Your task to perform on an android device: Go to battery settings Image 0: 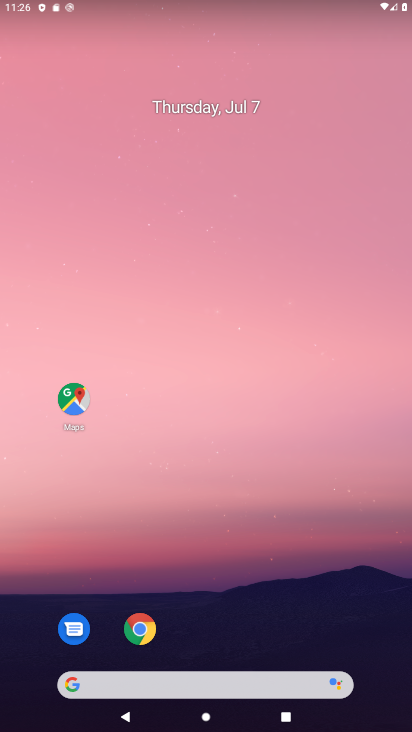
Step 0: drag from (355, 631) to (320, 143)
Your task to perform on an android device: Go to battery settings Image 1: 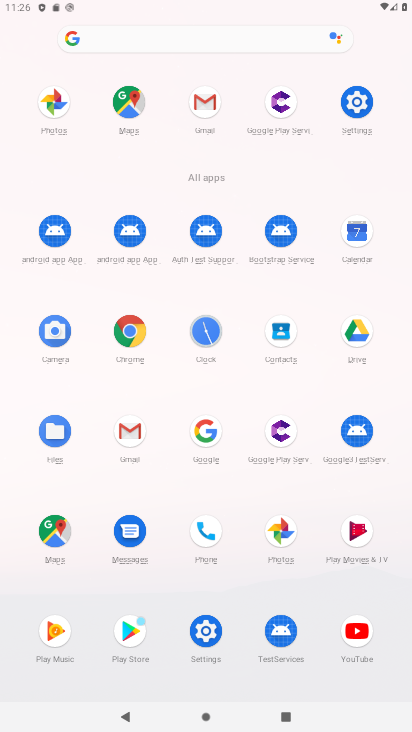
Step 1: click (209, 631)
Your task to perform on an android device: Go to battery settings Image 2: 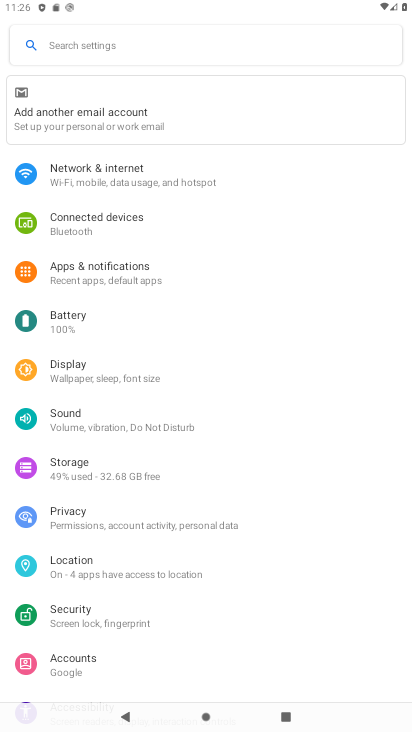
Step 2: click (68, 321)
Your task to perform on an android device: Go to battery settings Image 3: 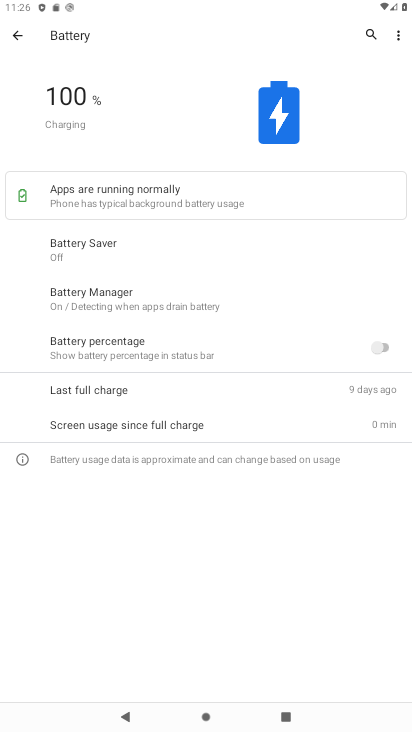
Step 3: task complete